Your task to perform on an android device: Show me popular videos on Youtube Image 0: 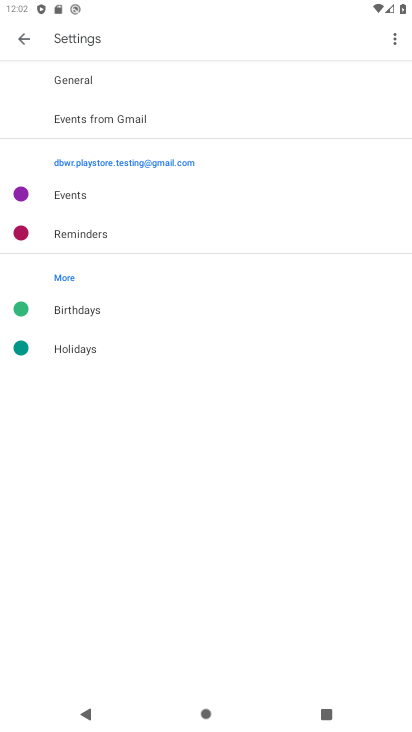
Step 0: press home button
Your task to perform on an android device: Show me popular videos on Youtube Image 1: 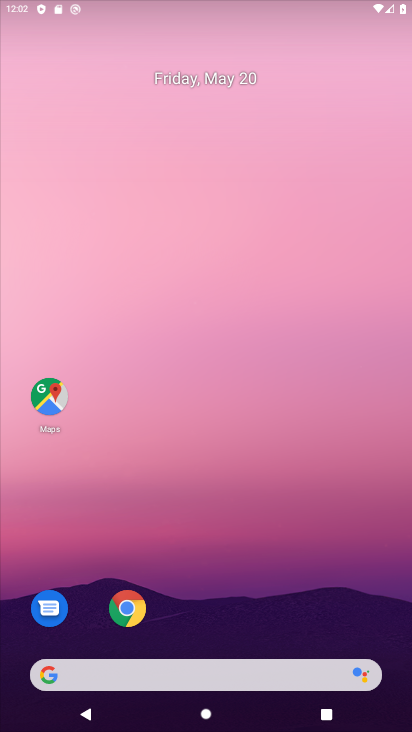
Step 1: drag from (356, 606) to (326, 163)
Your task to perform on an android device: Show me popular videos on Youtube Image 2: 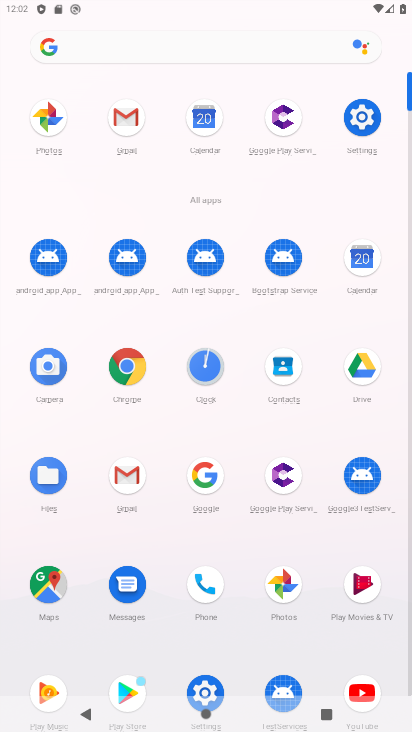
Step 2: click (359, 683)
Your task to perform on an android device: Show me popular videos on Youtube Image 3: 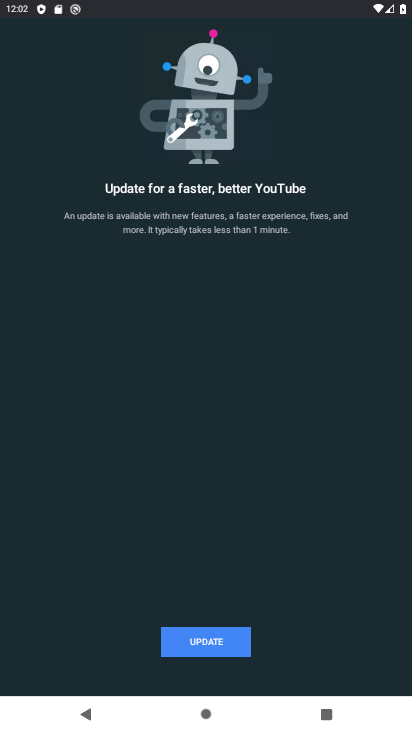
Step 3: click (228, 651)
Your task to perform on an android device: Show me popular videos on Youtube Image 4: 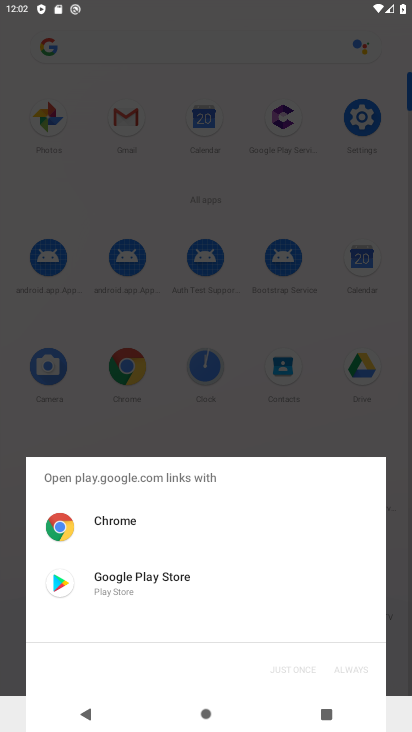
Step 4: click (136, 576)
Your task to perform on an android device: Show me popular videos on Youtube Image 5: 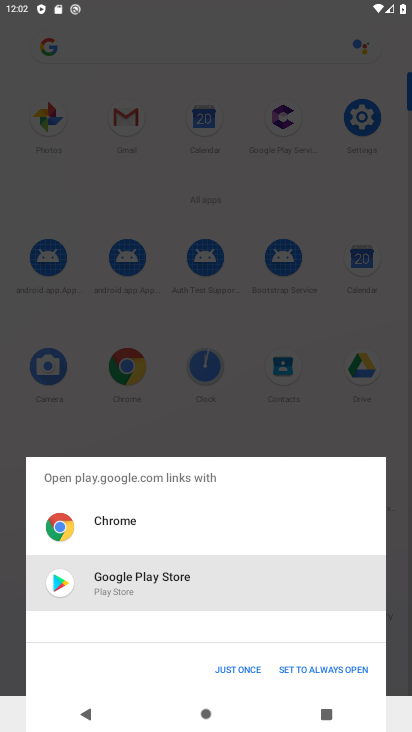
Step 5: click (233, 676)
Your task to perform on an android device: Show me popular videos on Youtube Image 6: 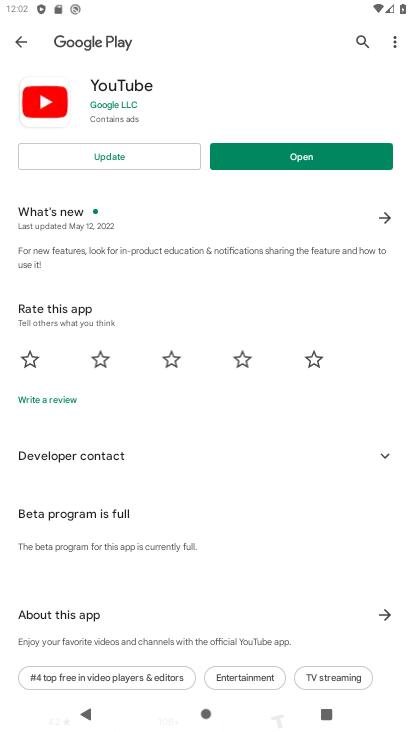
Step 6: click (102, 162)
Your task to perform on an android device: Show me popular videos on Youtube Image 7: 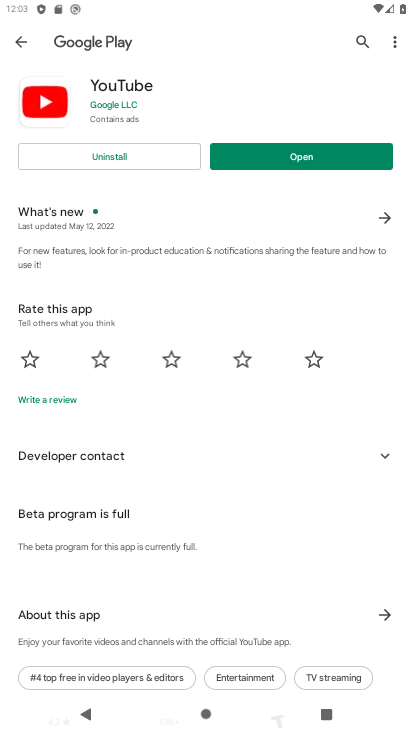
Step 7: click (310, 163)
Your task to perform on an android device: Show me popular videos on Youtube Image 8: 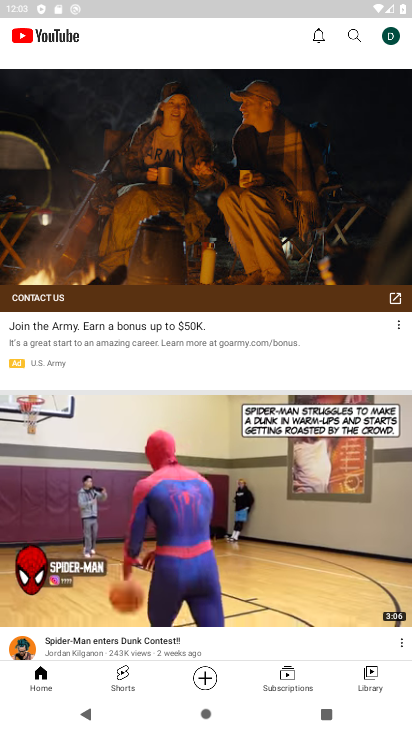
Step 8: task complete